Your task to perform on an android device: Open calendar and show me the first week of next month Image 0: 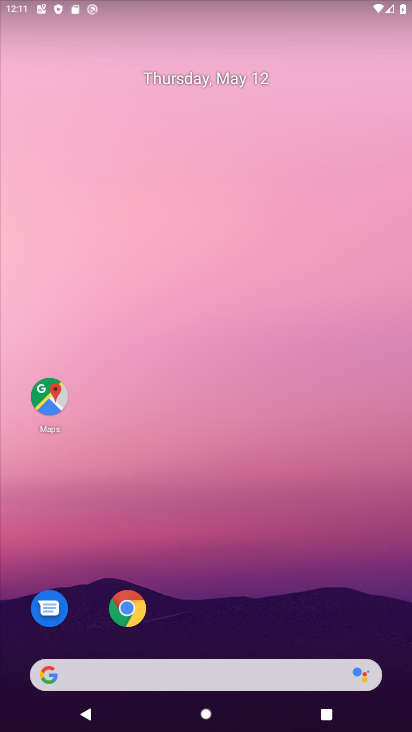
Step 0: drag from (276, 629) to (266, 13)
Your task to perform on an android device: Open calendar and show me the first week of next month Image 1: 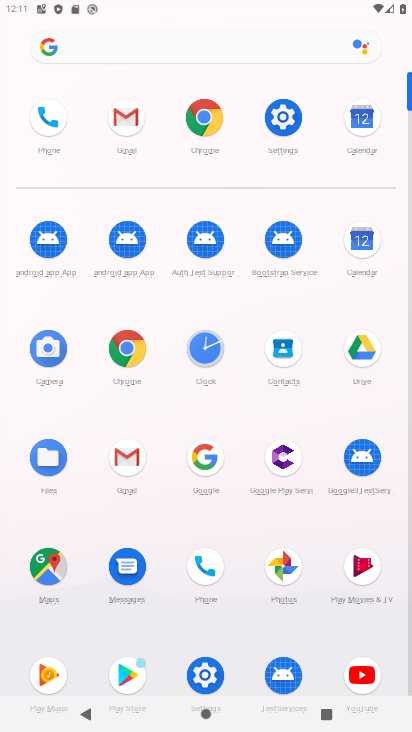
Step 1: click (360, 120)
Your task to perform on an android device: Open calendar and show me the first week of next month Image 2: 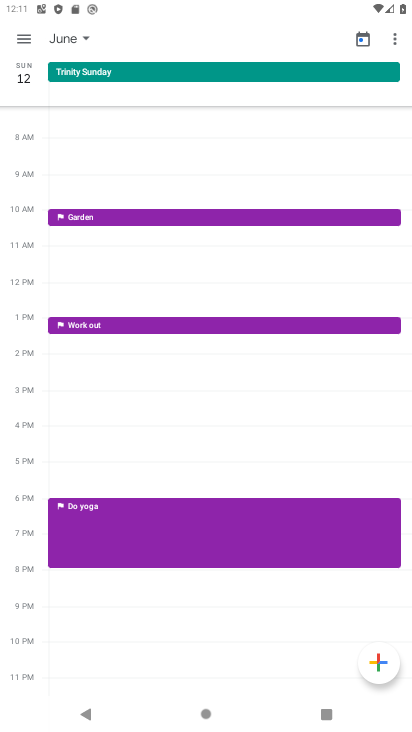
Step 2: click (23, 38)
Your task to perform on an android device: Open calendar and show me the first week of next month Image 3: 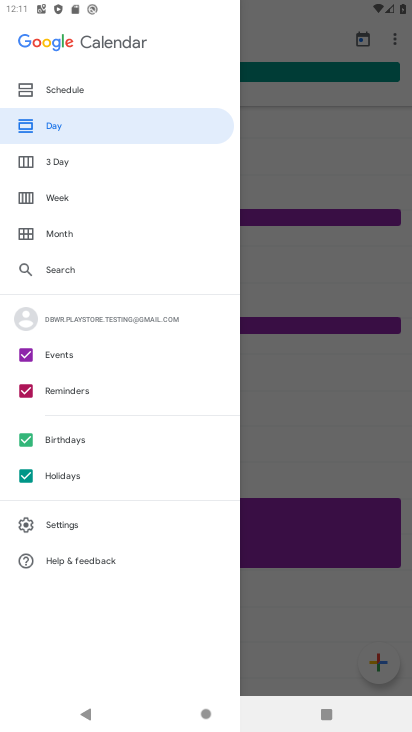
Step 3: click (51, 208)
Your task to perform on an android device: Open calendar and show me the first week of next month Image 4: 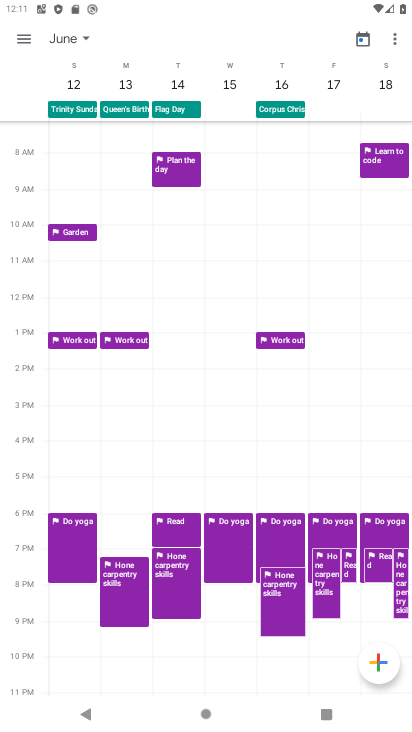
Step 4: task complete